Your task to perform on an android device: open sync settings in chrome Image 0: 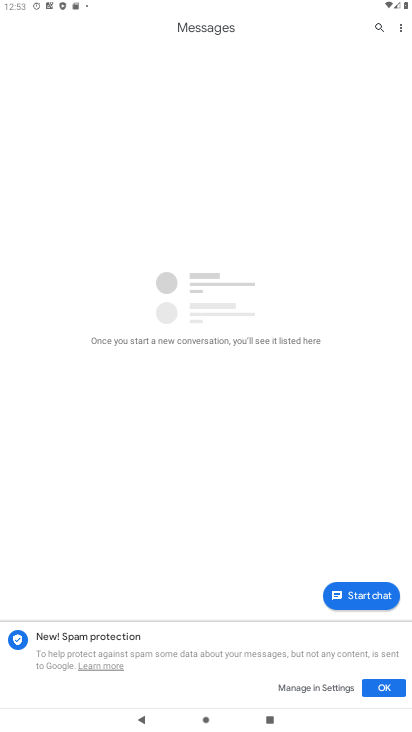
Step 0: press home button
Your task to perform on an android device: open sync settings in chrome Image 1: 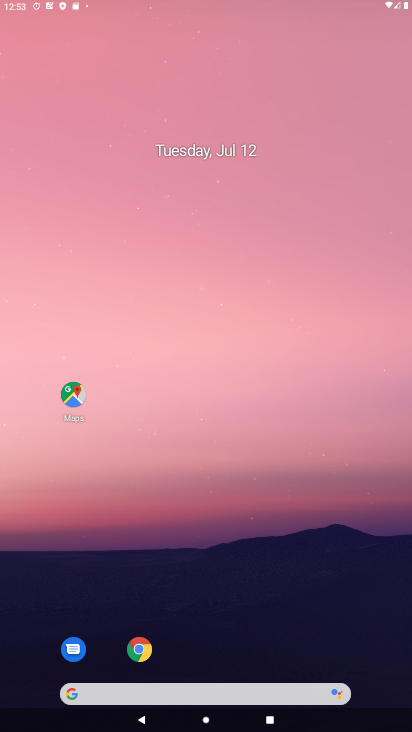
Step 1: drag from (361, 662) to (184, 6)
Your task to perform on an android device: open sync settings in chrome Image 2: 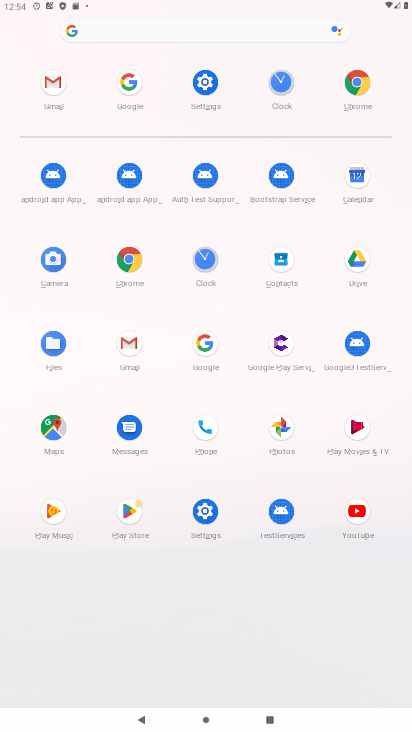
Step 2: click (129, 247)
Your task to perform on an android device: open sync settings in chrome Image 3: 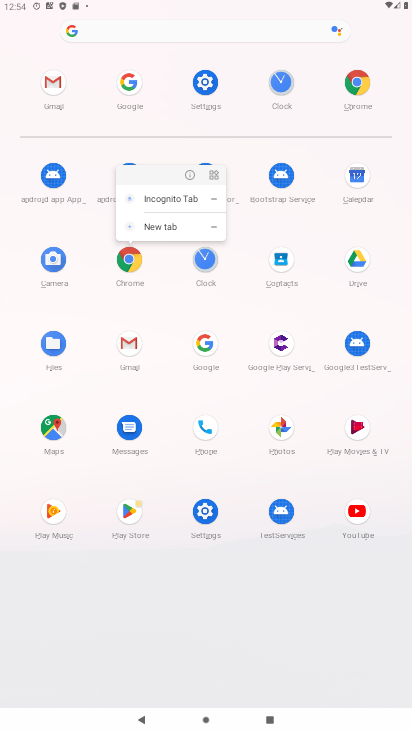
Step 3: click (124, 268)
Your task to perform on an android device: open sync settings in chrome Image 4: 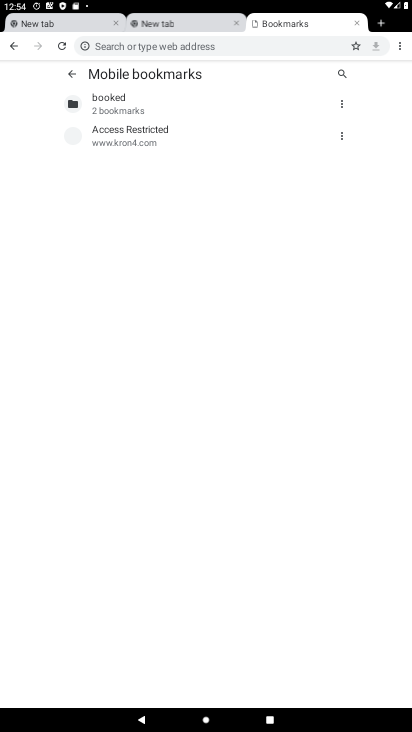
Step 4: click (396, 47)
Your task to perform on an android device: open sync settings in chrome Image 5: 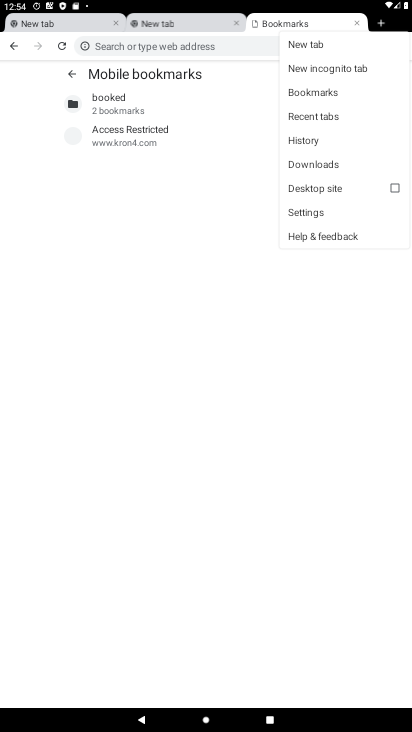
Step 5: click (320, 204)
Your task to perform on an android device: open sync settings in chrome Image 6: 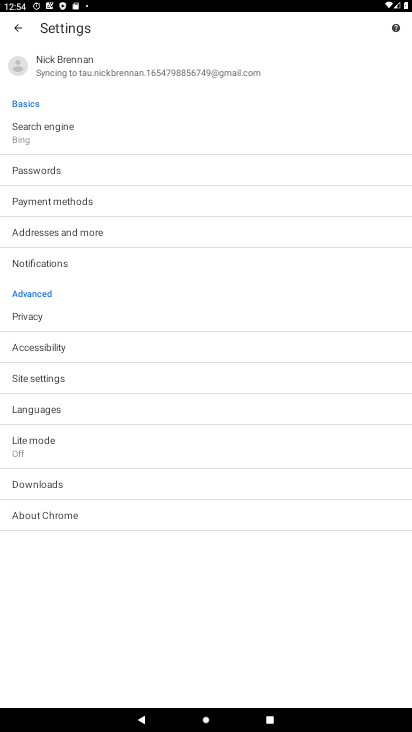
Step 6: click (42, 385)
Your task to perform on an android device: open sync settings in chrome Image 7: 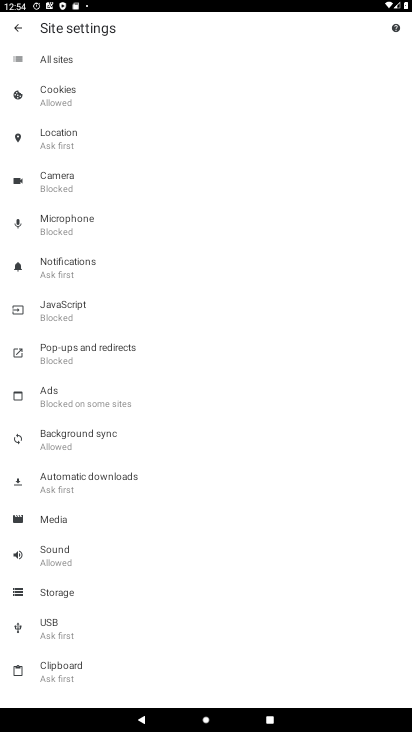
Step 7: click (71, 430)
Your task to perform on an android device: open sync settings in chrome Image 8: 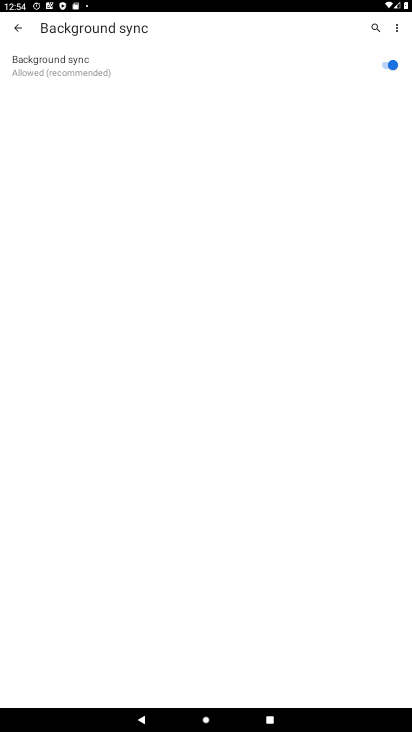
Step 8: task complete